Your task to perform on an android device: Open internet settings Image 0: 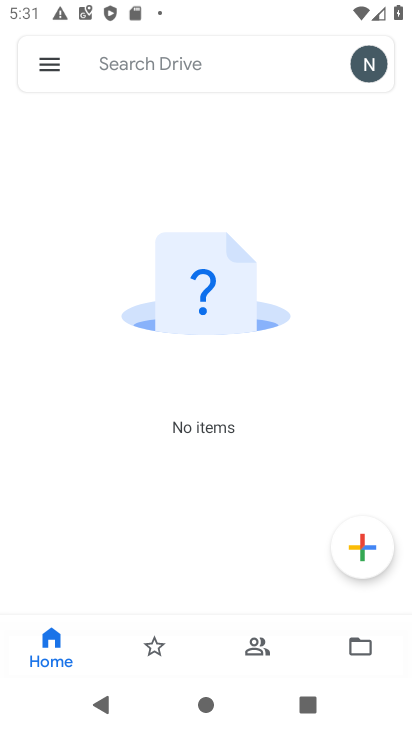
Step 0: press back button
Your task to perform on an android device: Open internet settings Image 1: 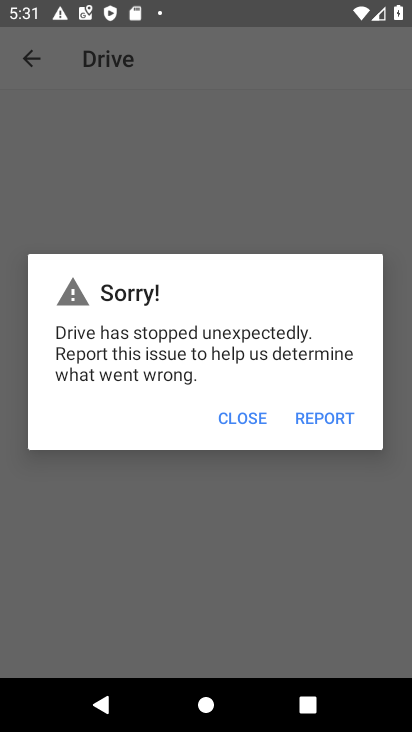
Step 1: press home button
Your task to perform on an android device: Open internet settings Image 2: 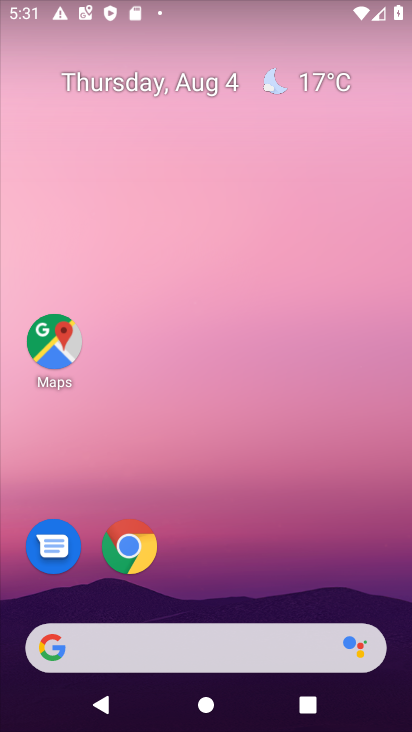
Step 2: drag from (214, 587) to (196, 235)
Your task to perform on an android device: Open internet settings Image 3: 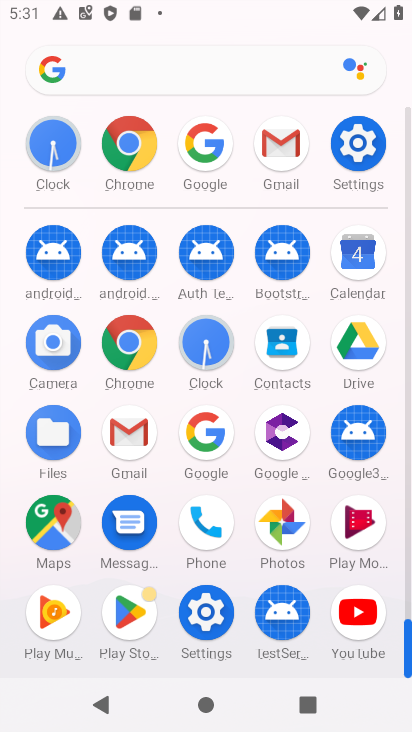
Step 3: click (359, 140)
Your task to perform on an android device: Open internet settings Image 4: 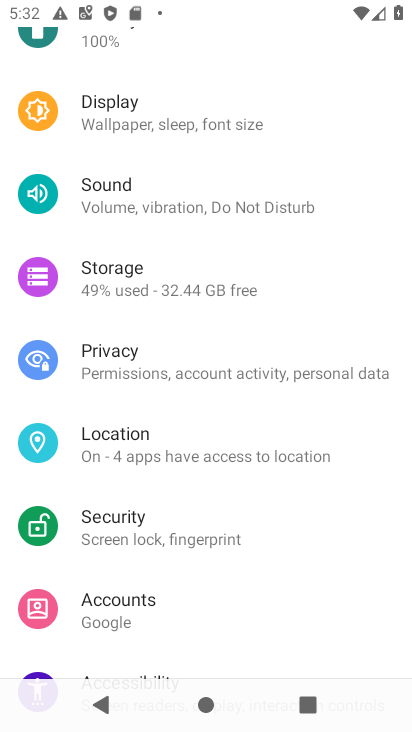
Step 4: drag from (287, 300) to (211, 724)
Your task to perform on an android device: Open internet settings Image 5: 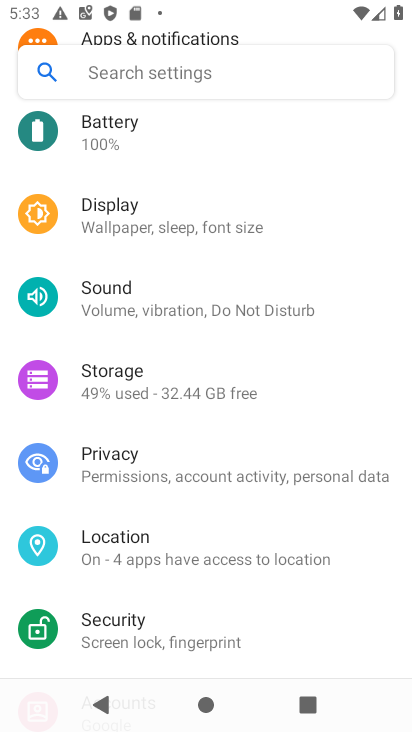
Step 5: drag from (252, 254) to (189, 602)
Your task to perform on an android device: Open internet settings Image 6: 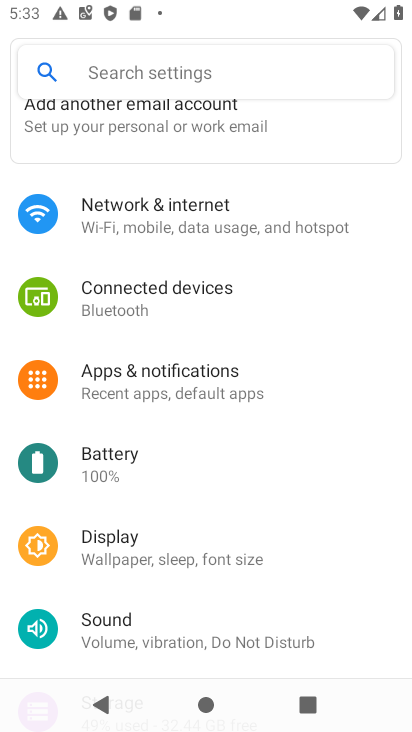
Step 6: click (179, 209)
Your task to perform on an android device: Open internet settings Image 7: 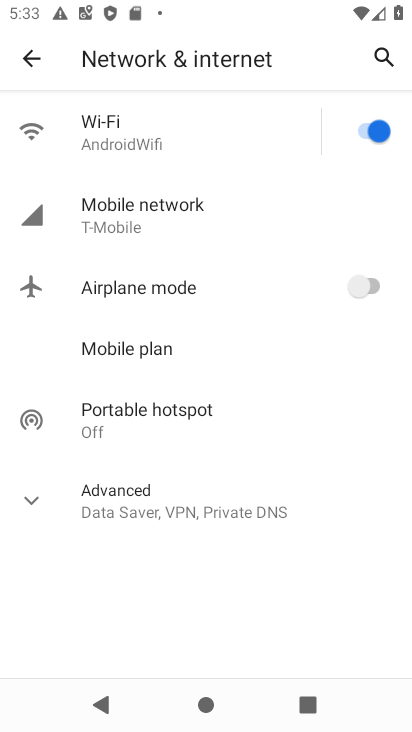
Step 7: press home button
Your task to perform on an android device: Open internet settings Image 8: 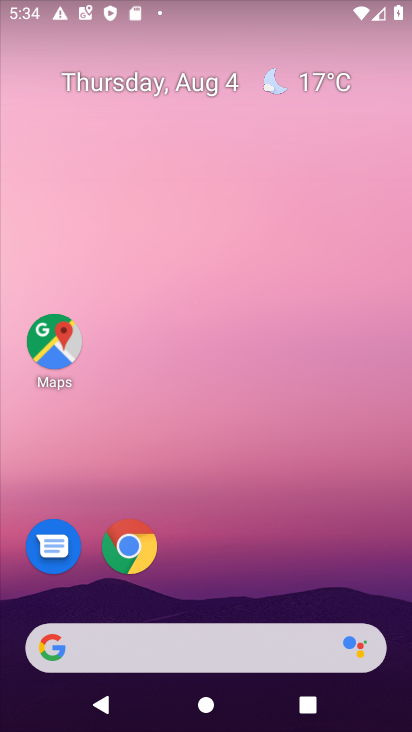
Step 8: drag from (211, 574) to (185, 60)
Your task to perform on an android device: Open internet settings Image 9: 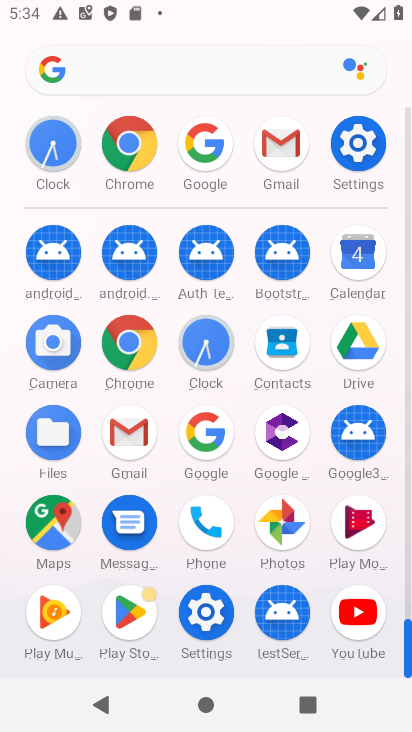
Step 9: click (353, 141)
Your task to perform on an android device: Open internet settings Image 10: 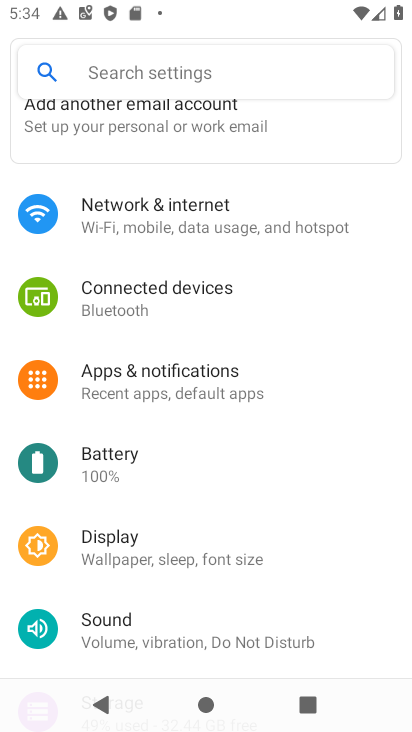
Step 10: click (185, 217)
Your task to perform on an android device: Open internet settings Image 11: 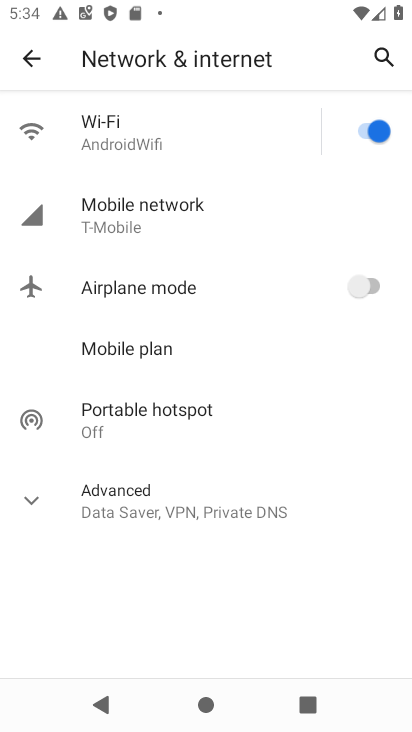
Step 11: task complete